Your task to perform on an android device: check google app version Image 0: 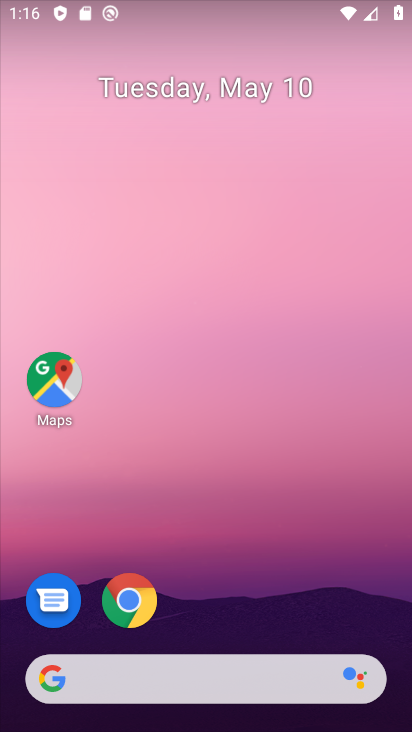
Step 0: drag from (259, 557) to (273, 151)
Your task to perform on an android device: check google app version Image 1: 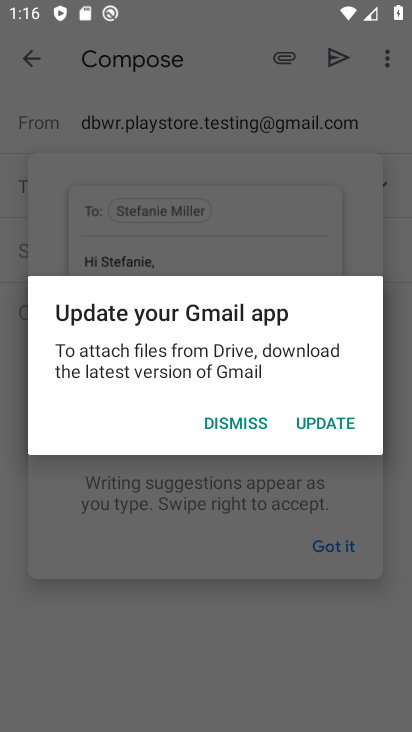
Step 1: click (254, 422)
Your task to perform on an android device: check google app version Image 2: 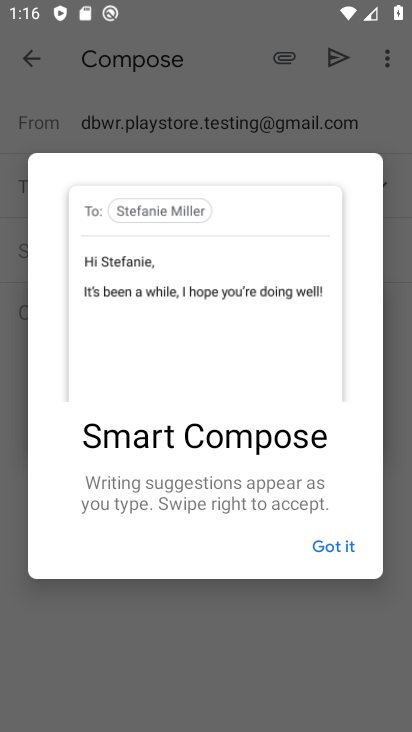
Step 2: click (353, 537)
Your task to perform on an android device: check google app version Image 3: 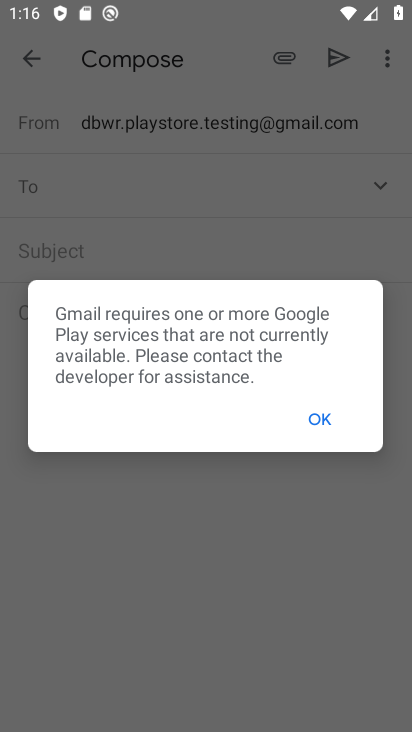
Step 3: click (335, 424)
Your task to perform on an android device: check google app version Image 4: 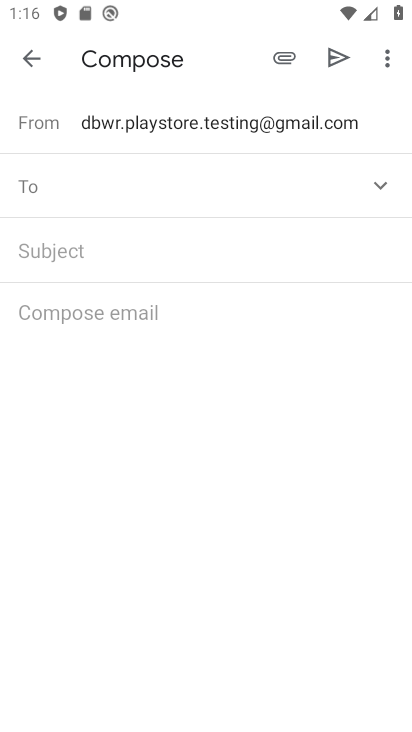
Step 4: task complete